Your task to perform on an android device: open the mobile data screen to see how much data has been used Image 0: 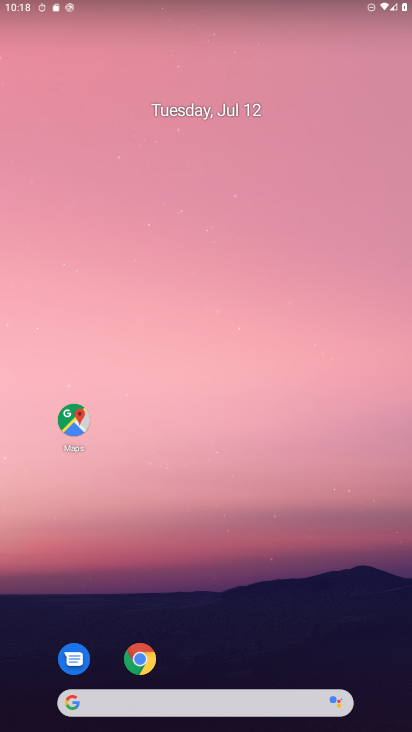
Step 0: drag from (209, 721) to (208, 142)
Your task to perform on an android device: open the mobile data screen to see how much data has been used Image 1: 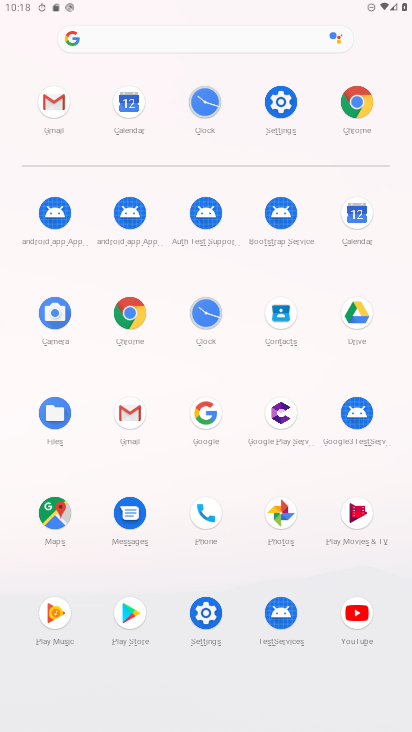
Step 1: click (275, 99)
Your task to perform on an android device: open the mobile data screen to see how much data has been used Image 2: 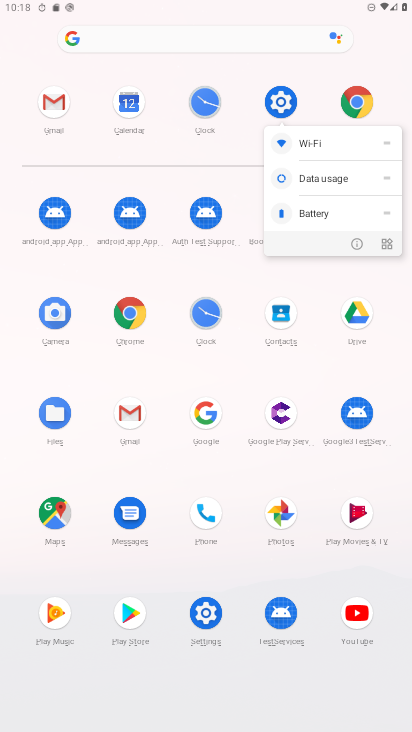
Step 2: click (282, 91)
Your task to perform on an android device: open the mobile data screen to see how much data has been used Image 3: 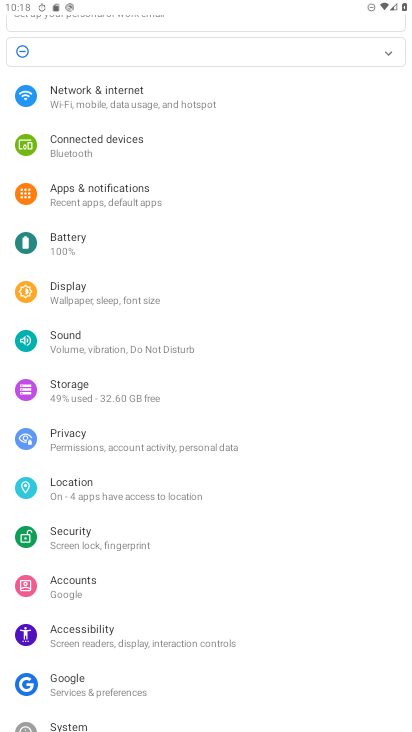
Step 3: click (84, 94)
Your task to perform on an android device: open the mobile data screen to see how much data has been used Image 4: 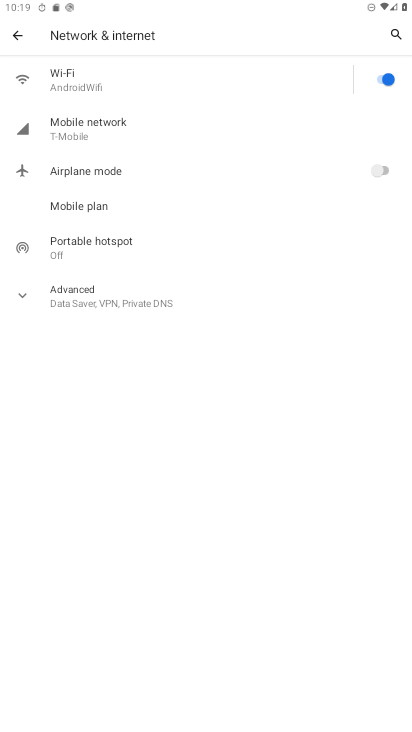
Step 4: click (92, 119)
Your task to perform on an android device: open the mobile data screen to see how much data has been used Image 5: 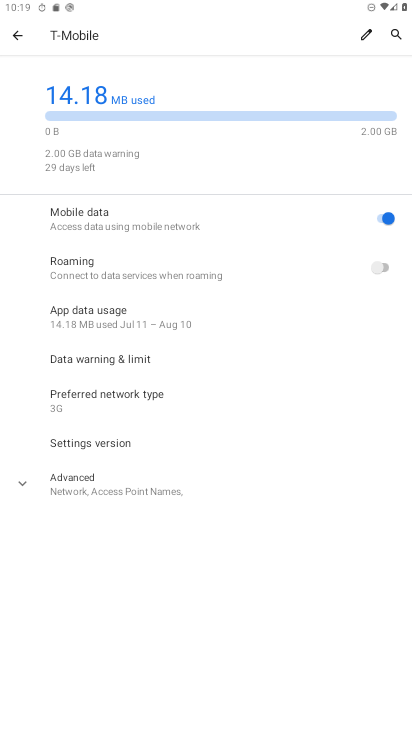
Step 5: click (93, 313)
Your task to perform on an android device: open the mobile data screen to see how much data has been used Image 6: 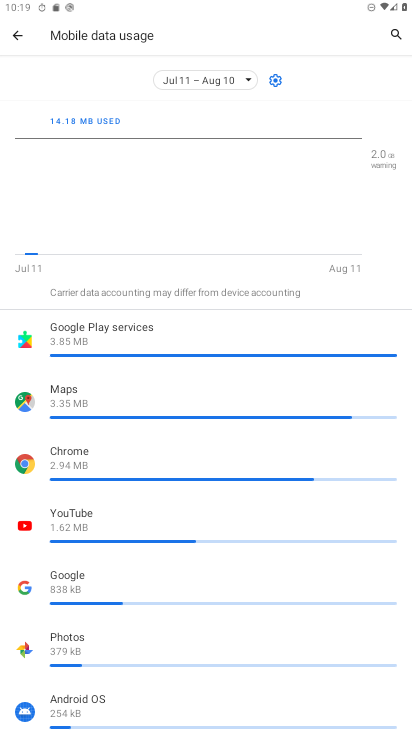
Step 6: task complete